Your task to perform on an android device: turn on the 24-hour format for clock Image 0: 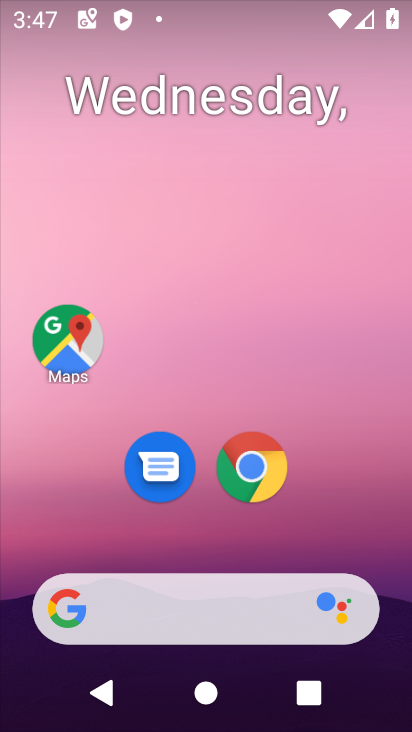
Step 0: drag from (395, 604) to (298, 149)
Your task to perform on an android device: turn on the 24-hour format for clock Image 1: 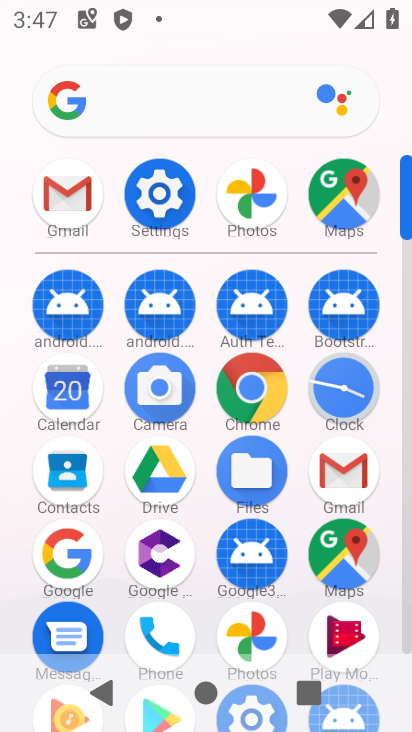
Step 1: click (342, 389)
Your task to perform on an android device: turn on the 24-hour format for clock Image 2: 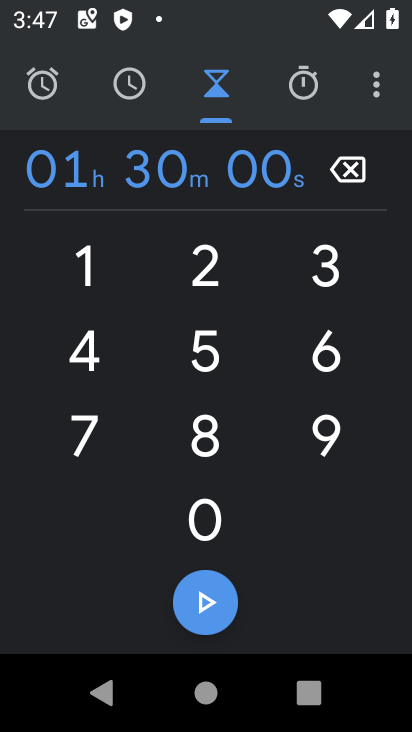
Step 2: click (370, 88)
Your task to perform on an android device: turn on the 24-hour format for clock Image 3: 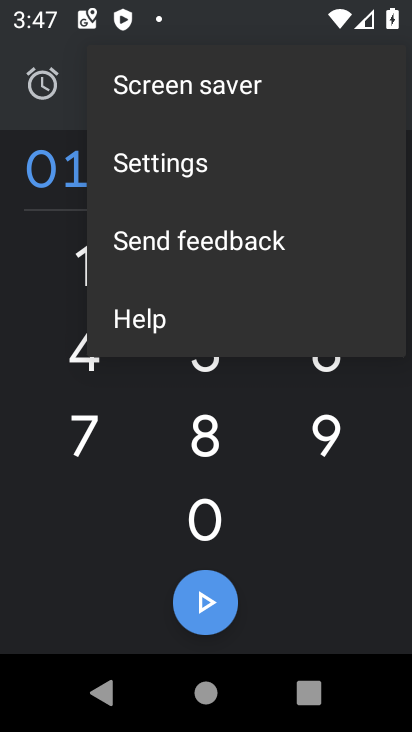
Step 3: click (151, 159)
Your task to perform on an android device: turn on the 24-hour format for clock Image 4: 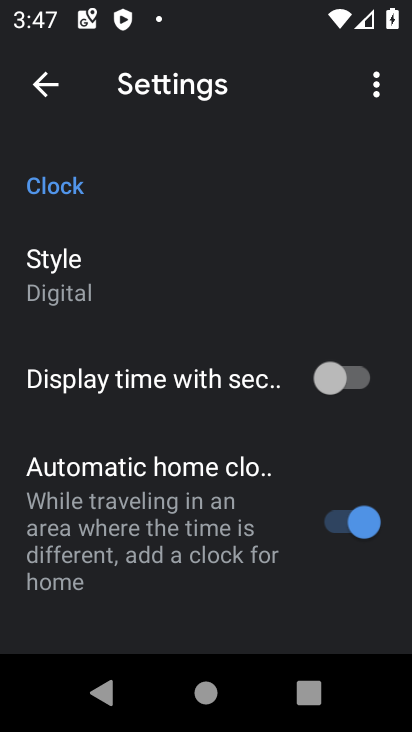
Step 4: drag from (297, 474) to (285, 226)
Your task to perform on an android device: turn on the 24-hour format for clock Image 5: 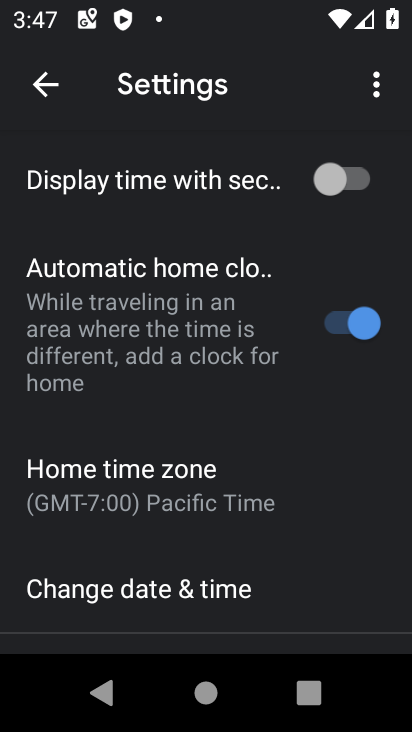
Step 5: drag from (300, 506) to (274, 239)
Your task to perform on an android device: turn on the 24-hour format for clock Image 6: 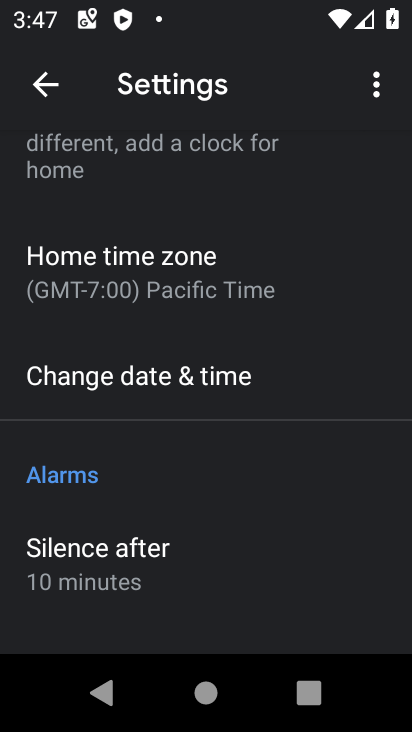
Step 6: click (90, 381)
Your task to perform on an android device: turn on the 24-hour format for clock Image 7: 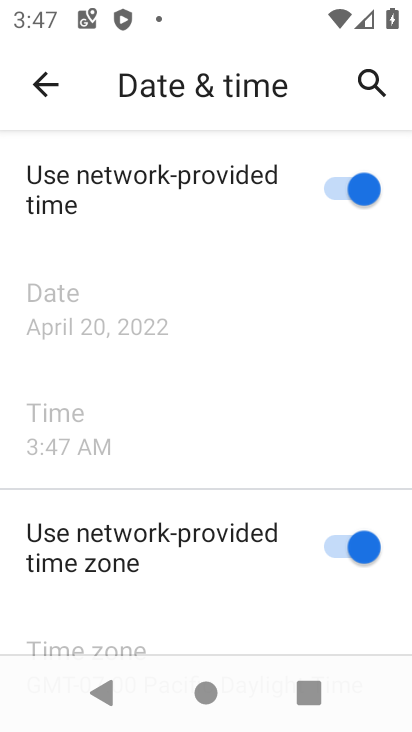
Step 7: drag from (307, 576) to (297, 289)
Your task to perform on an android device: turn on the 24-hour format for clock Image 8: 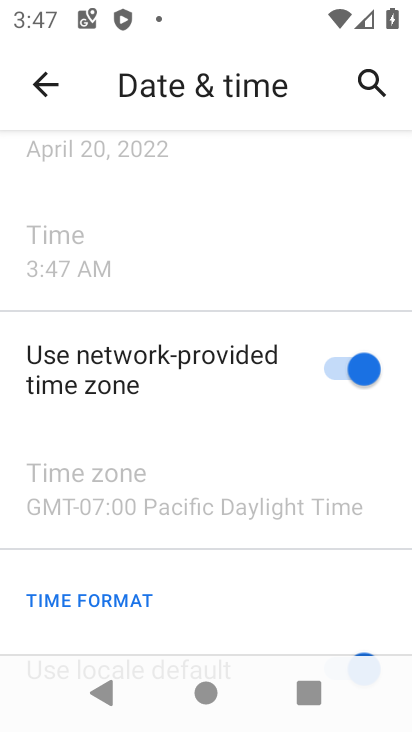
Step 8: drag from (290, 591) to (266, 290)
Your task to perform on an android device: turn on the 24-hour format for clock Image 9: 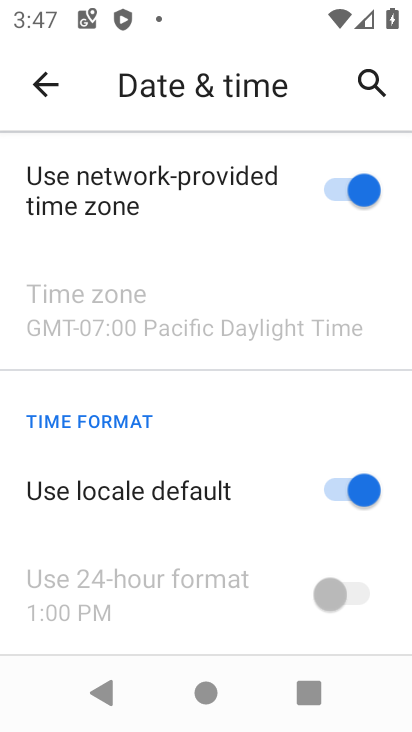
Step 9: click (330, 483)
Your task to perform on an android device: turn on the 24-hour format for clock Image 10: 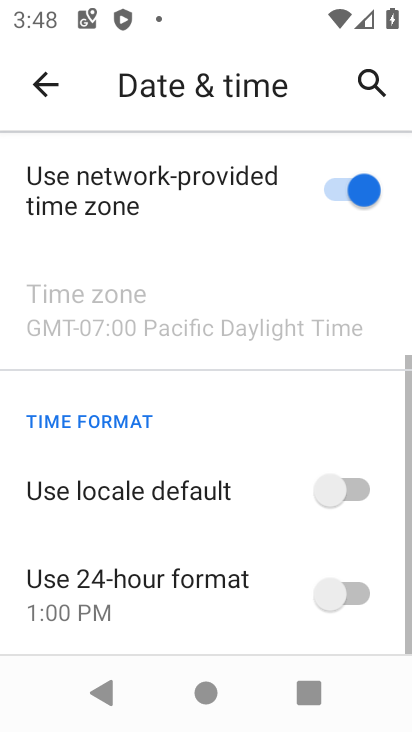
Step 10: click (358, 597)
Your task to perform on an android device: turn on the 24-hour format for clock Image 11: 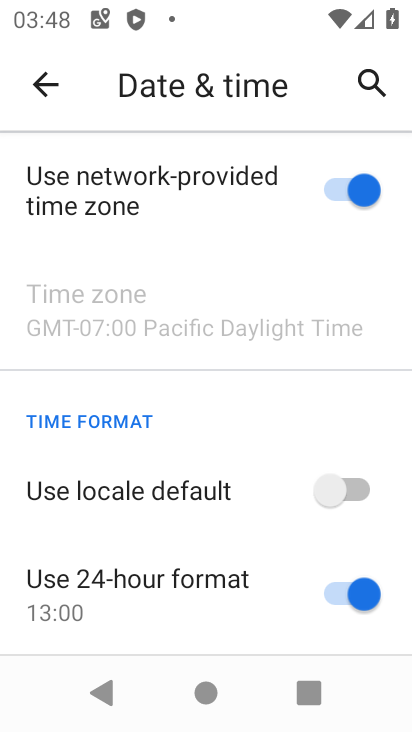
Step 11: task complete